Your task to perform on an android device: Open notification settings Image 0: 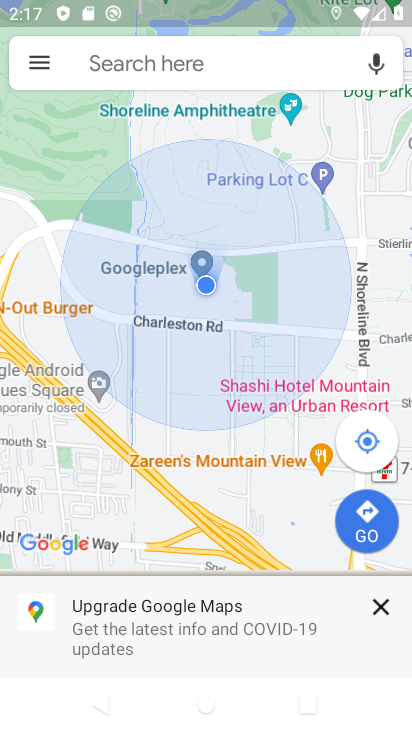
Step 0: press home button
Your task to perform on an android device: Open notification settings Image 1: 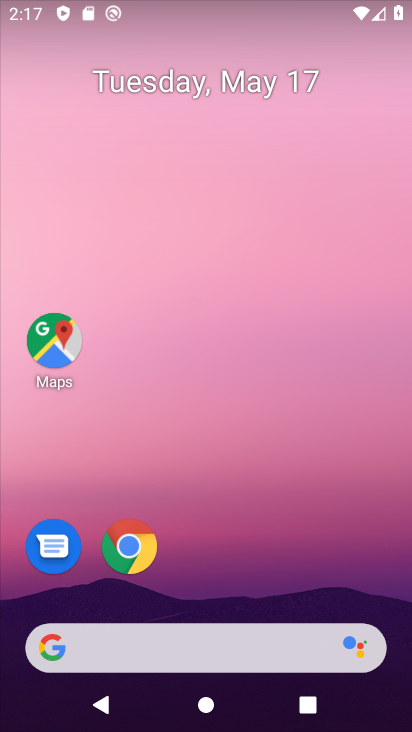
Step 1: drag from (243, 663) to (312, 195)
Your task to perform on an android device: Open notification settings Image 2: 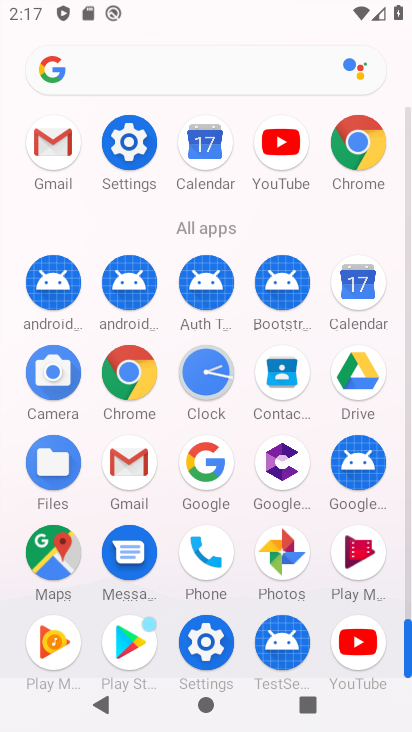
Step 2: click (220, 653)
Your task to perform on an android device: Open notification settings Image 3: 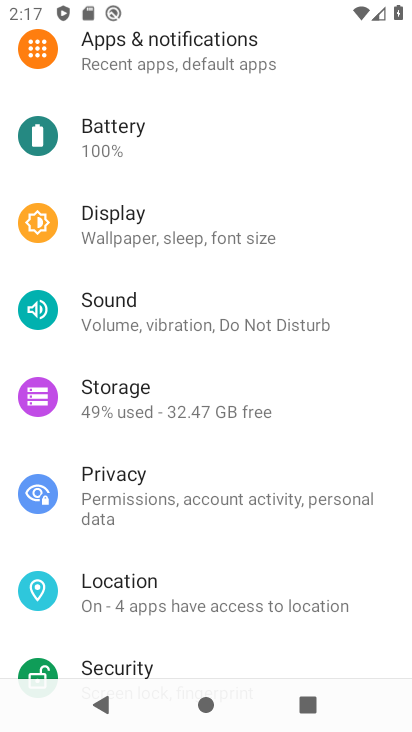
Step 3: click (255, 63)
Your task to perform on an android device: Open notification settings Image 4: 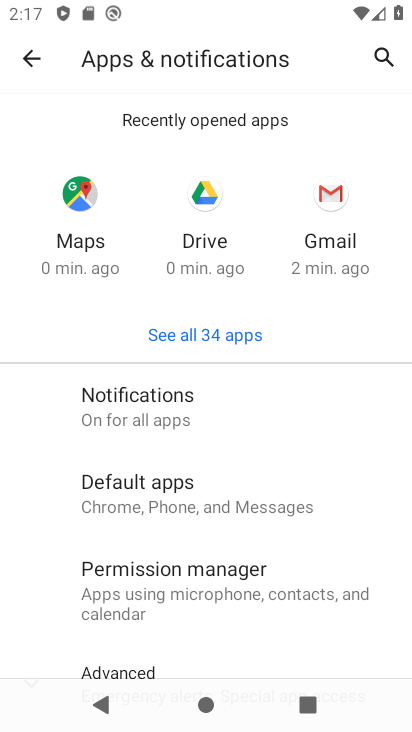
Step 4: click (193, 406)
Your task to perform on an android device: Open notification settings Image 5: 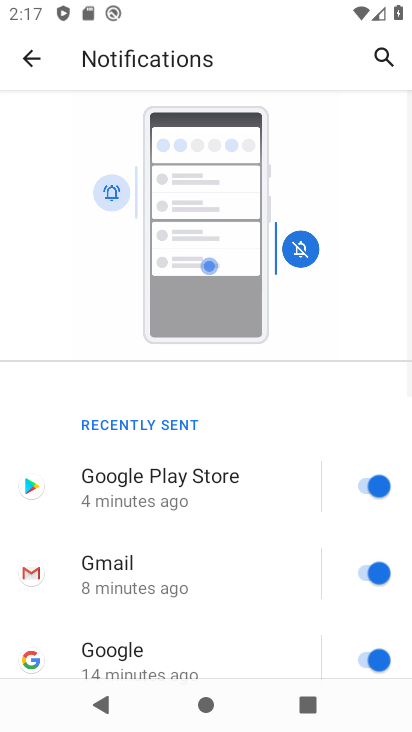
Step 5: task complete